Your task to perform on an android device: Open the Play Movies app and select the watchlist tab. Image 0: 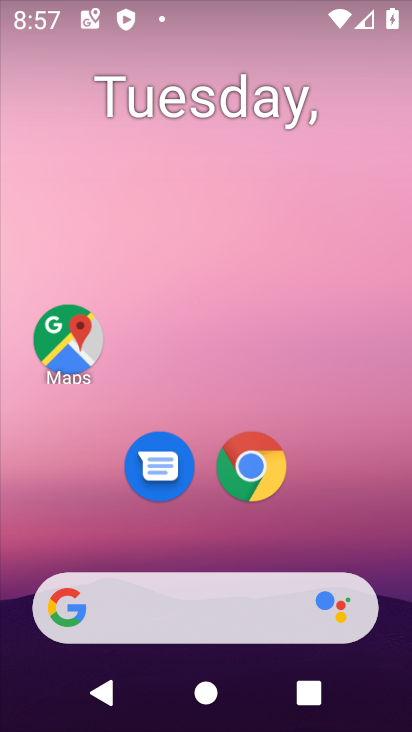
Step 0: drag from (371, 505) to (335, 11)
Your task to perform on an android device: Open the Play Movies app and select the watchlist tab. Image 1: 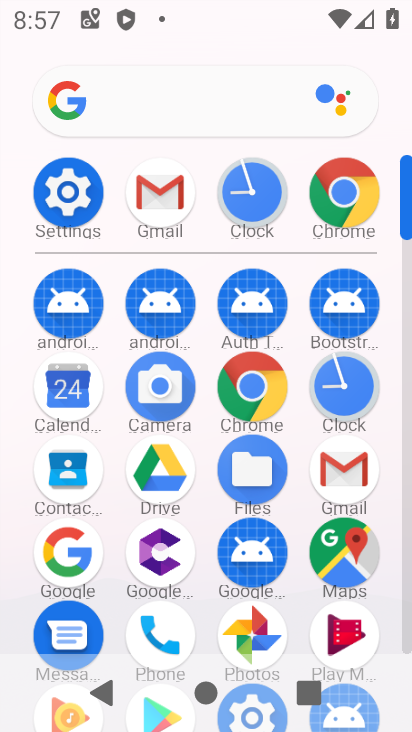
Step 1: click (406, 646)
Your task to perform on an android device: Open the Play Movies app and select the watchlist tab. Image 2: 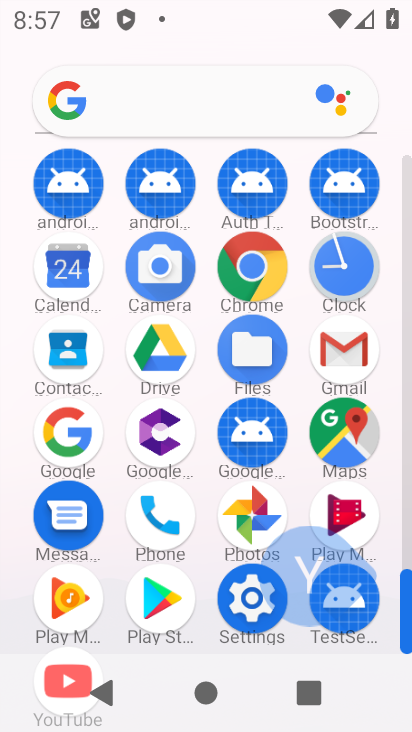
Step 2: click (406, 646)
Your task to perform on an android device: Open the Play Movies app and select the watchlist tab. Image 3: 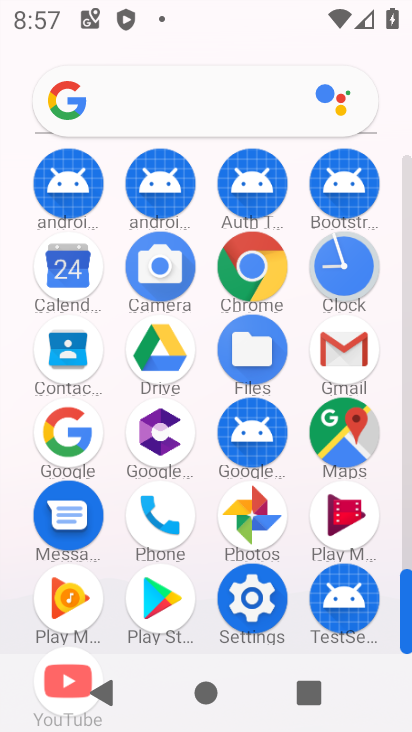
Step 3: click (406, 646)
Your task to perform on an android device: Open the Play Movies app and select the watchlist tab. Image 4: 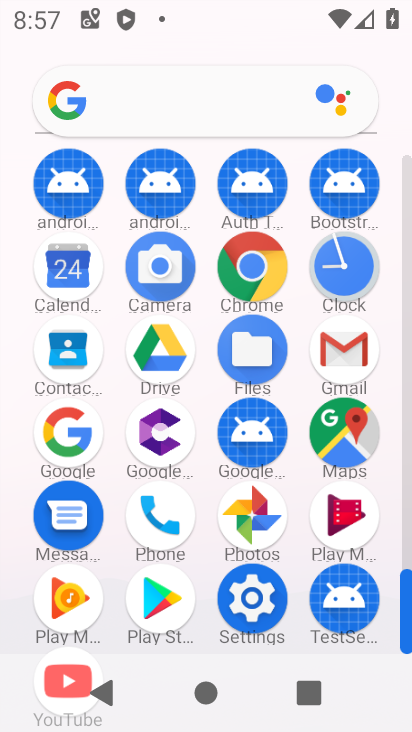
Step 4: click (358, 521)
Your task to perform on an android device: Open the Play Movies app and select the watchlist tab. Image 5: 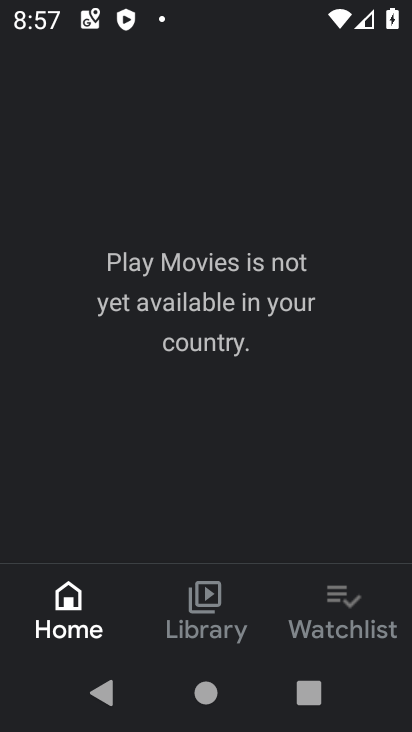
Step 5: click (360, 602)
Your task to perform on an android device: Open the Play Movies app and select the watchlist tab. Image 6: 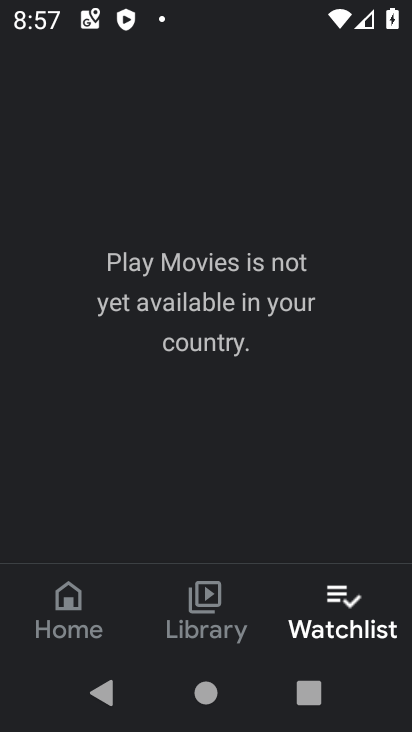
Step 6: task complete